Your task to perform on an android device: open a new tab in the chrome app Image 0: 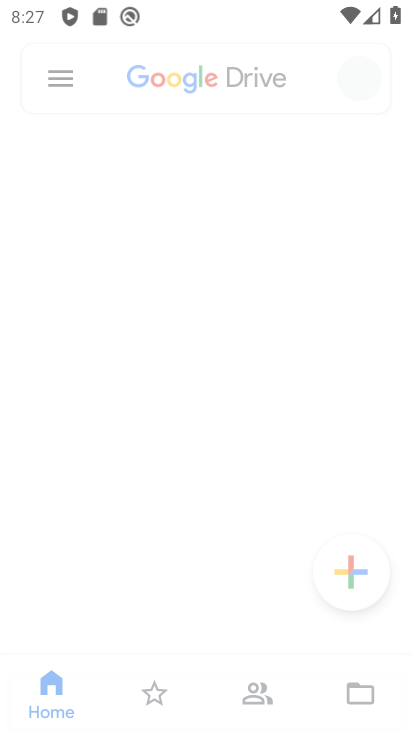
Step 0: drag from (279, 663) to (193, 136)
Your task to perform on an android device: open a new tab in the chrome app Image 1: 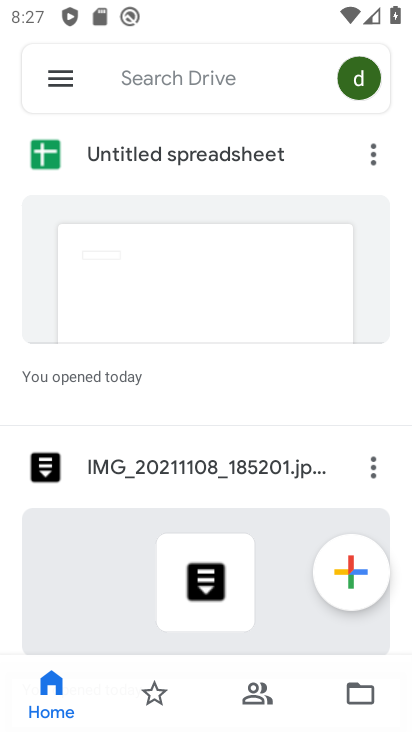
Step 1: press back button
Your task to perform on an android device: open a new tab in the chrome app Image 2: 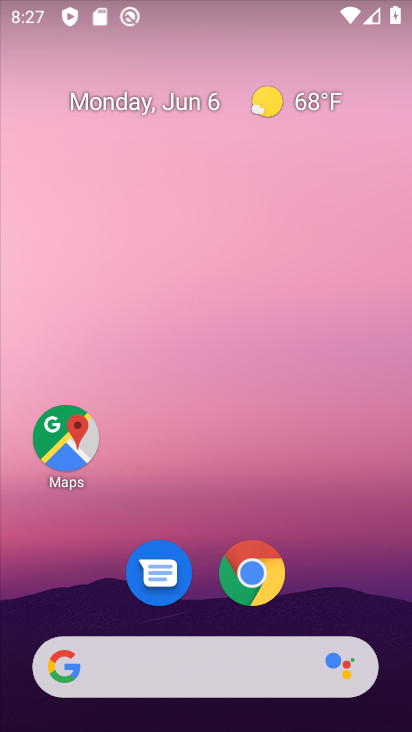
Step 2: drag from (245, 595) to (155, 143)
Your task to perform on an android device: open a new tab in the chrome app Image 3: 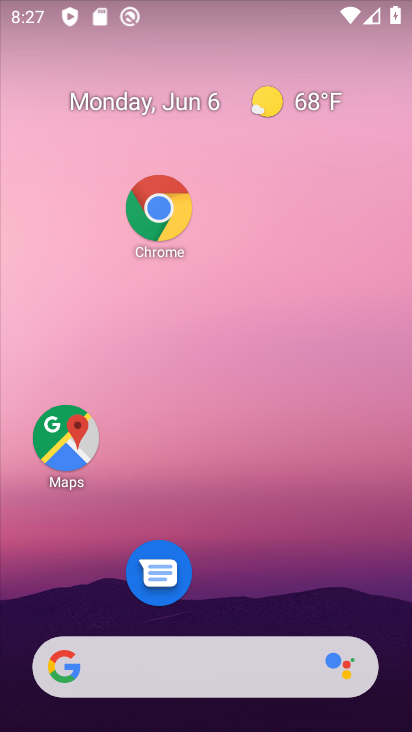
Step 3: drag from (245, 666) to (203, 201)
Your task to perform on an android device: open a new tab in the chrome app Image 4: 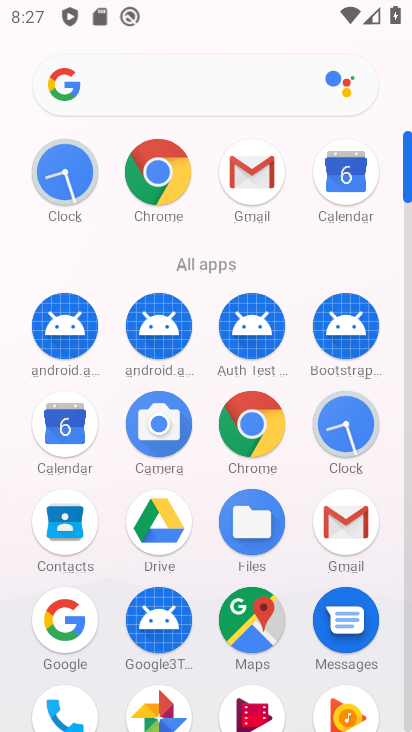
Step 4: click (164, 177)
Your task to perform on an android device: open a new tab in the chrome app Image 5: 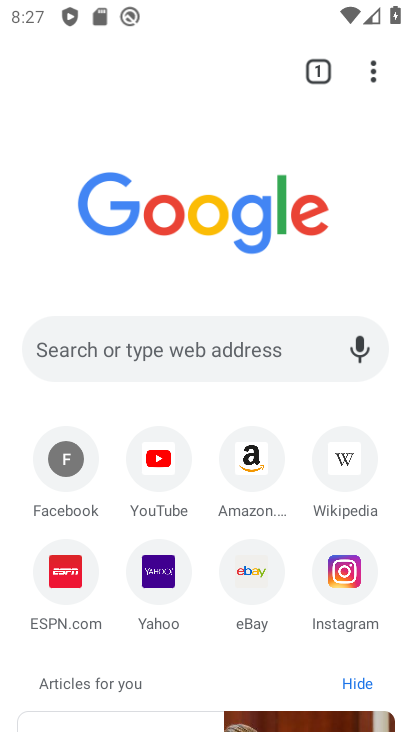
Step 5: drag from (372, 70) to (103, 133)
Your task to perform on an android device: open a new tab in the chrome app Image 6: 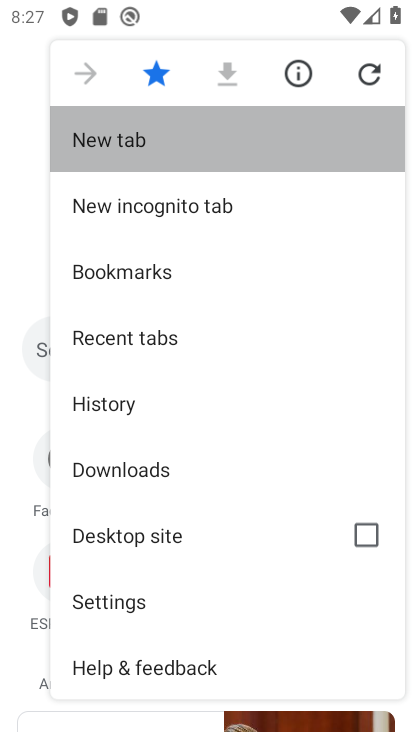
Step 6: click (103, 133)
Your task to perform on an android device: open a new tab in the chrome app Image 7: 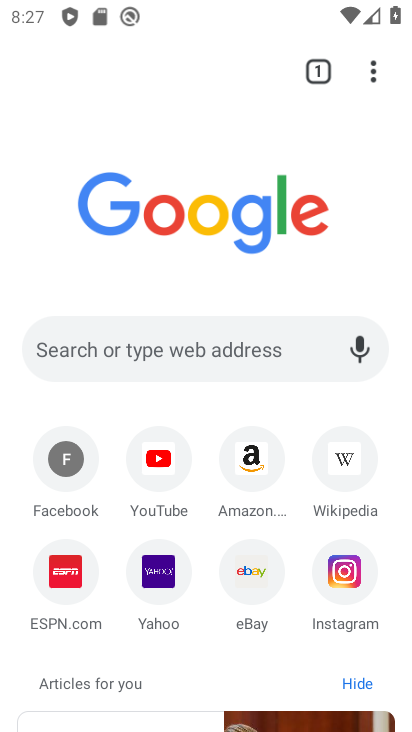
Step 7: click (102, 133)
Your task to perform on an android device: open a new tab in the chrome app Image 8: 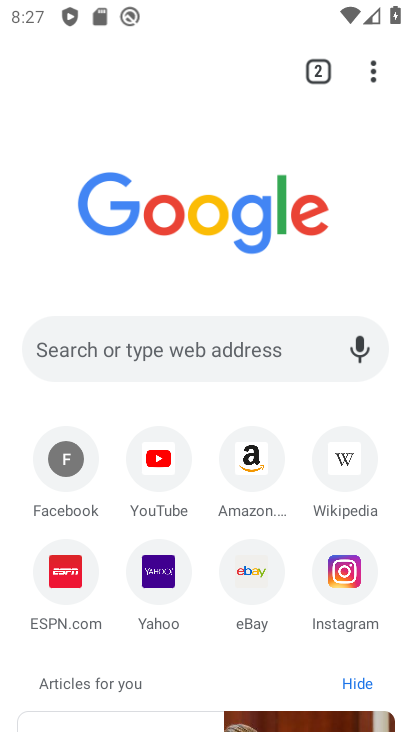
Step 8: task complete